Your task to perform on an android device: open sync settings in chrome Image 0: 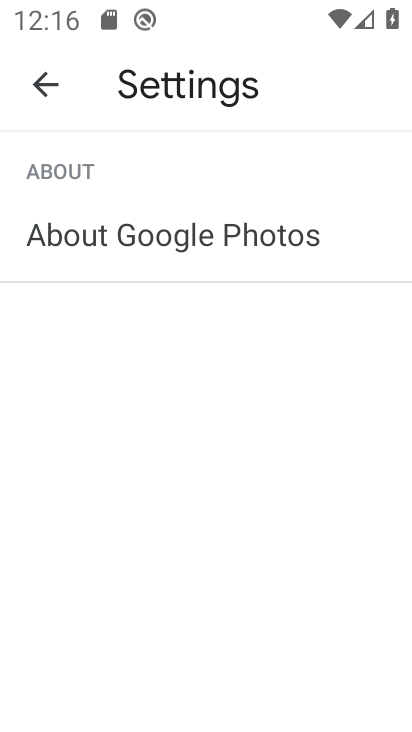
Step 0: press home button
Your task to perform on an android device: open sync settings in chrome Image 1: 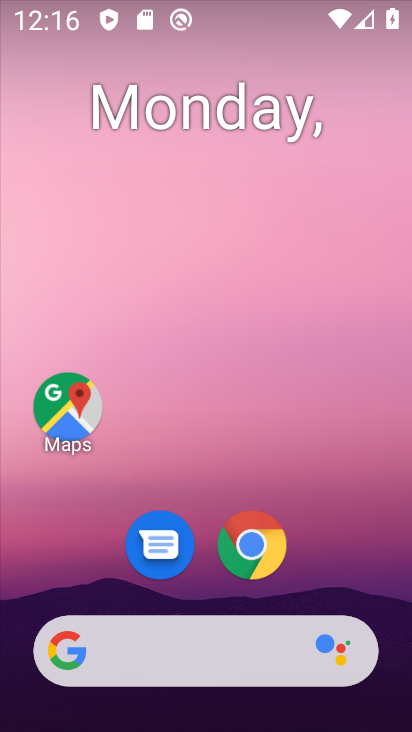
Step 1: click (252, 548)
Your task to perform on an android device: open sync settings in chrome Image 2: 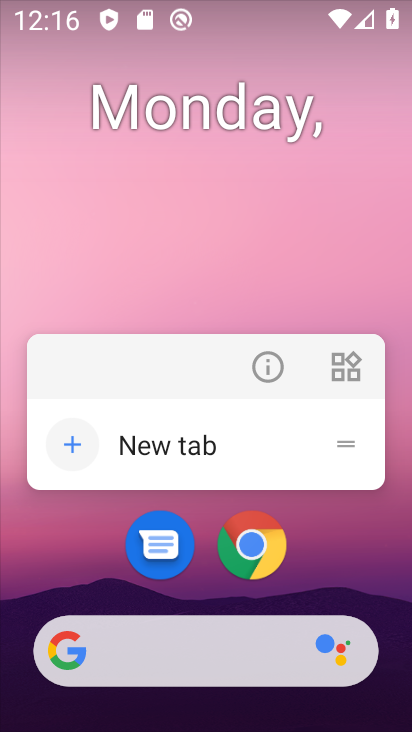
Step 2: click (252, 548)
Your task to perform on an android device: open sync settings in chrome Image 3: 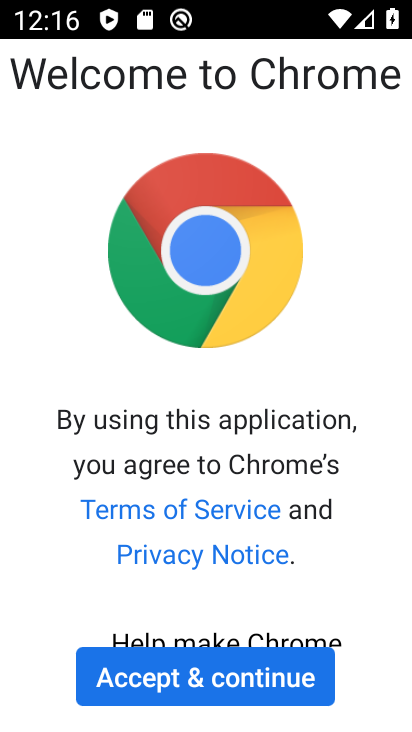
Step 3: click (227, 678)
Your task to perform on an android device: open sync settings in chrome Image 4: 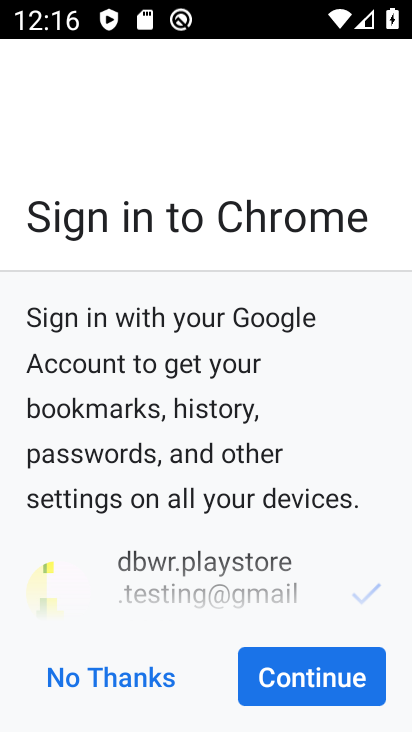
Step 4: click (280, 682)
Your task to perform on an android device: open sync settings in chrome Image 5: 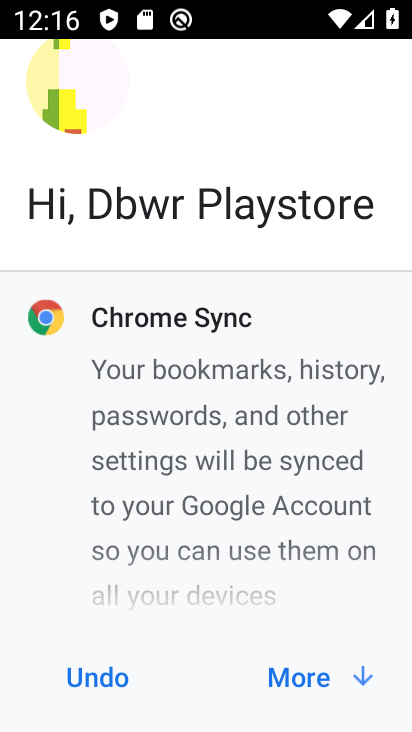
Step 5: click (297, 677)
Your task to perform on an android device: open sync settings in chrome Image 6: 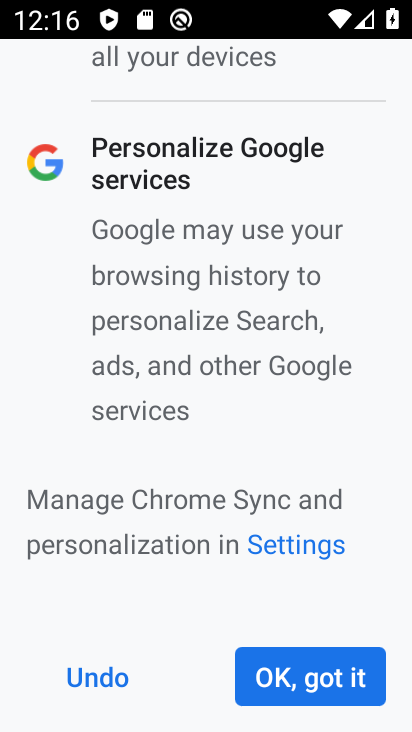
Step 6: click (297, 677)
Your task to perform on an android device: open sync settings in chrome Image 7: 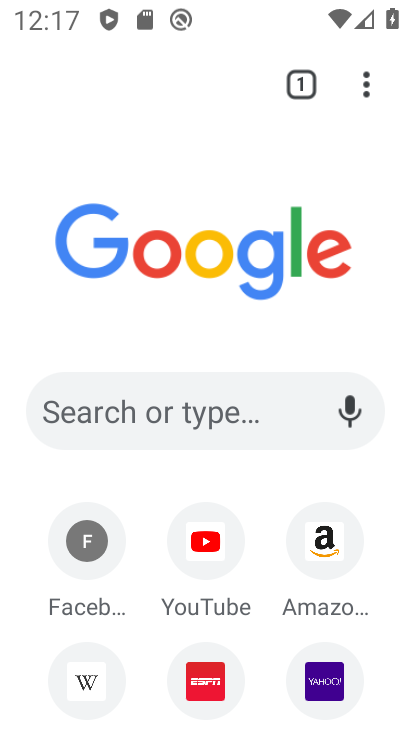
Step 7: click (363, 82)
Your task to perform on an android device: open sync settings in chrome Image 8: 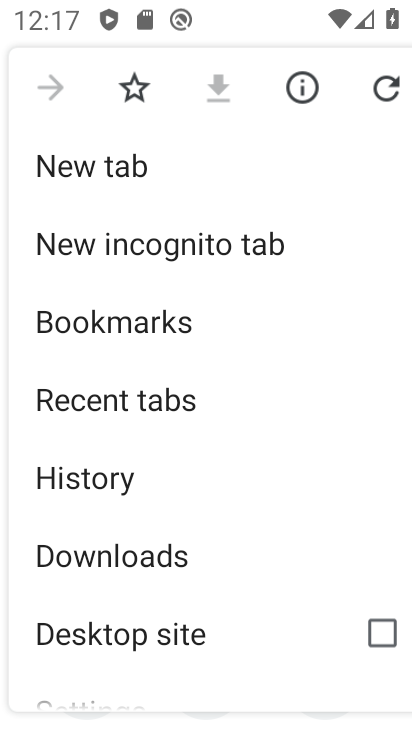
Step 8: drag from (244, 579) to (317, 115)
Your task to perform on an android device: open sync settings in chrome Image 9: 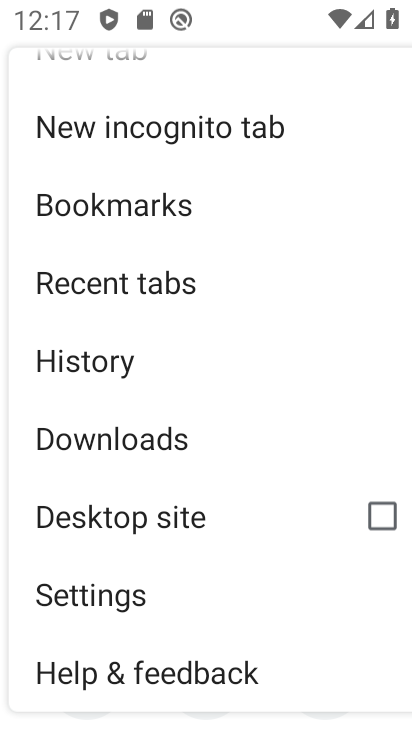
Step 9: click (91, 597)
Your task to perform on an android device: open sync settings in chrome Image 10: 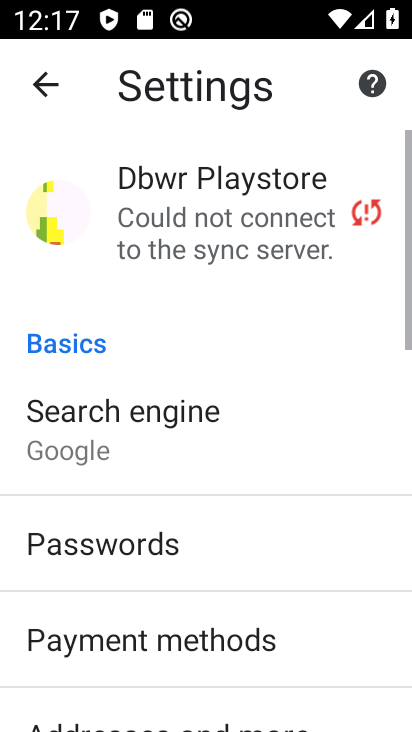
Step 10: drag from (268, 545) to (300, 95)
Your task to perform on an android device: open sync settings in chrome Image 11: 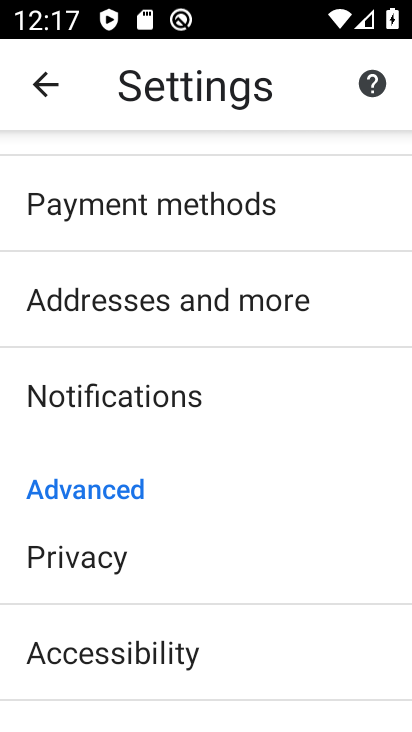
Step 11: drag from (191, 577) to (192, 198)
Your task to perform on an android device: open sync settings in chrome Image 12: 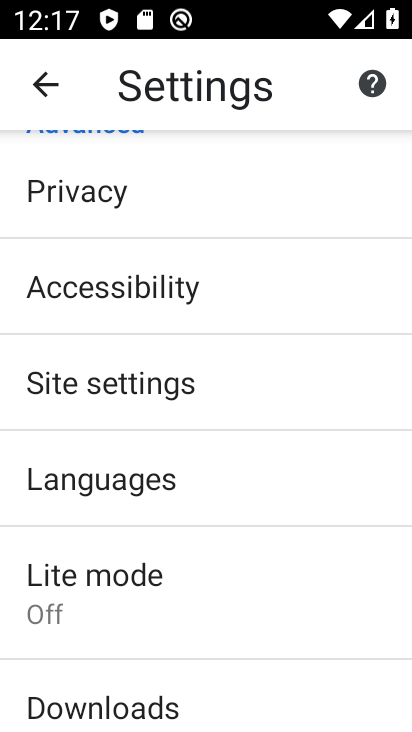
Step 12: click (113, 375)
Your task to perform on an android device: open sync settings in chrome Image 13: 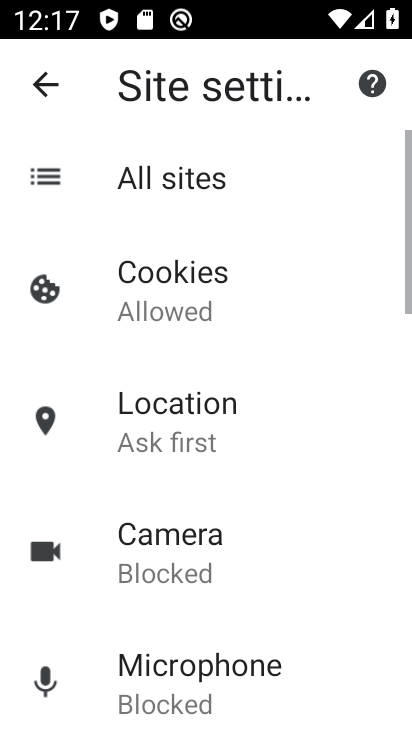
Step 13: drag from (237, 580) to (245, 217)
Your task to perform on an android device: open sync settings in chrome Image 14: 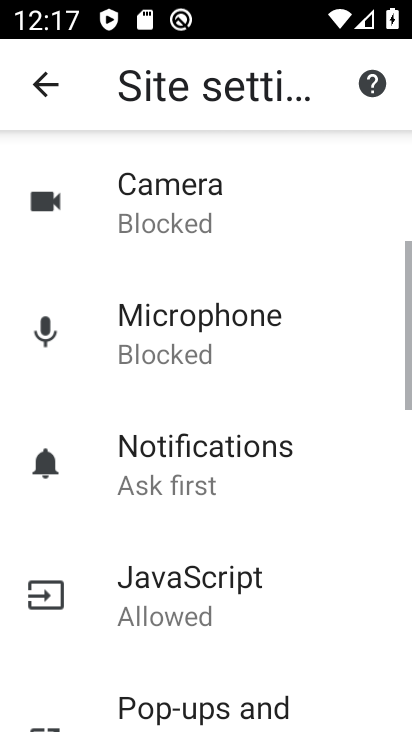
Step 14: drag from (249, 640) to (245, 240)
Your task to perform on an android device: open sync settings in chrome Image 15: 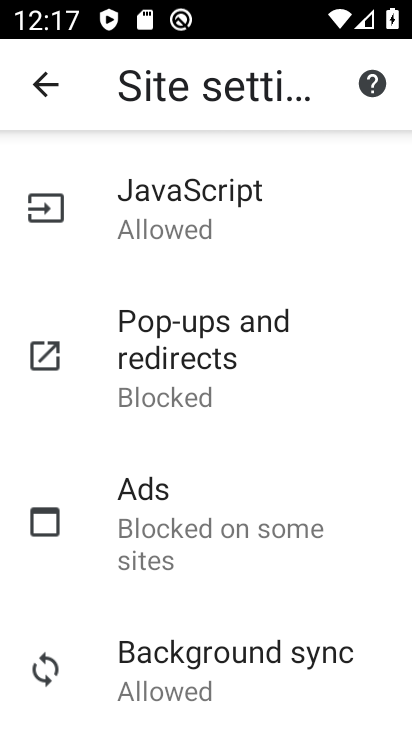
Step 15: click (176, 667)
Your task to perform on an android device: open sync settings in chrome Image 16: 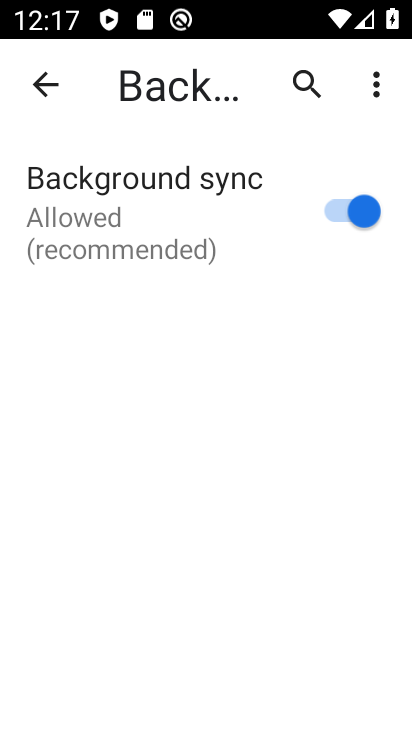
Step 16: task complete